Your task to perform on an android device: Go to sound settings Image 0: 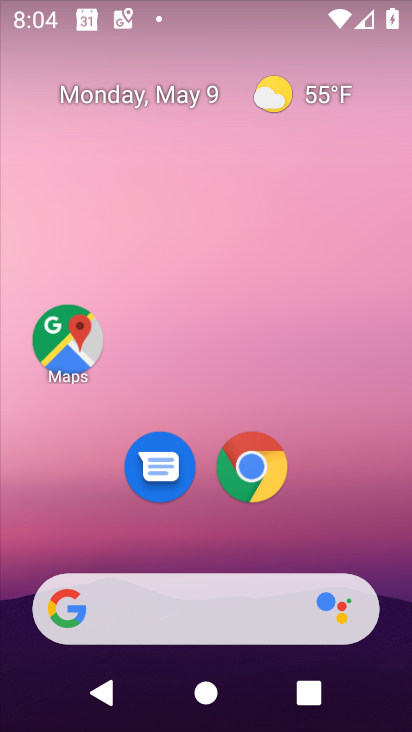
Step 0: drag from (399, 383) to (390, 37)
Your task to perform on an android device: Go to sound settings Image 1: 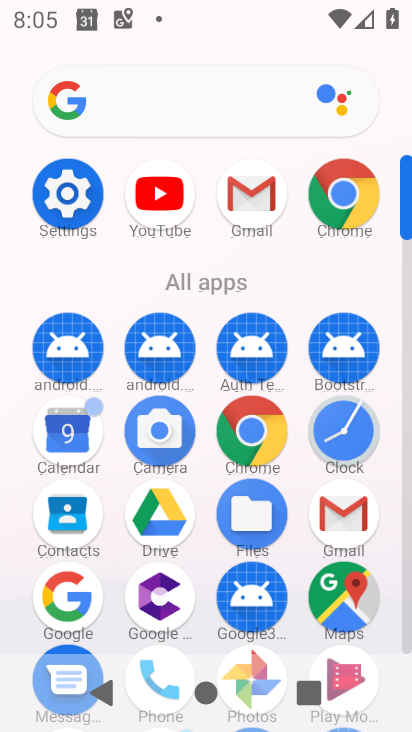
Step 1: click (67, 194)
Your task to perform on an android device: Go to sound settings Image 2: 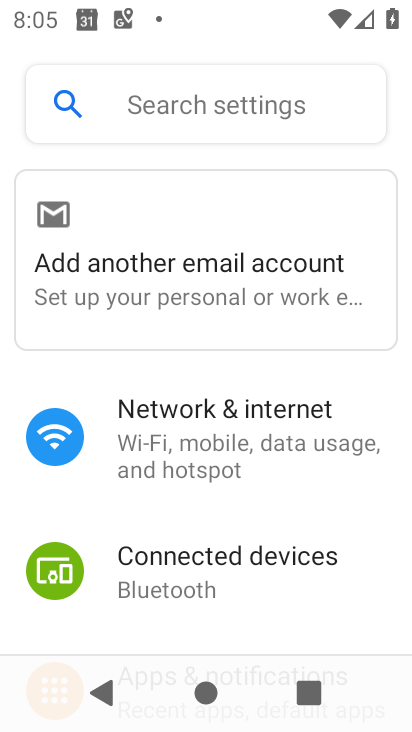
Step 2: drag from (306, 584) to (290, 70)
Your task to perform on an android device: Go to sound settings Image 3: 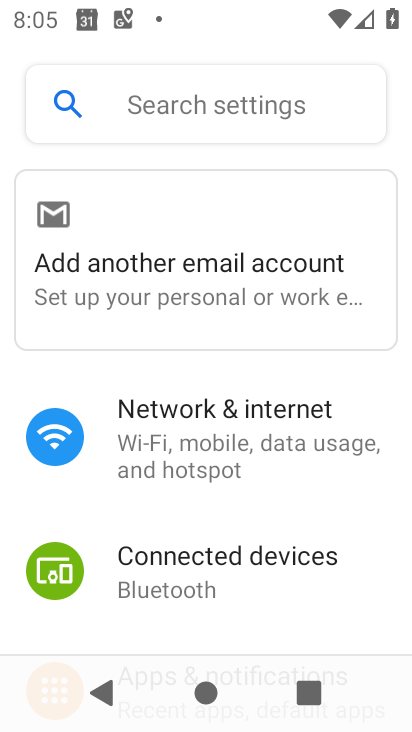
Step 3: drag from (307, 639) to (293, 133)
Your task to perform on an android device: Go to sound settings Image 4: 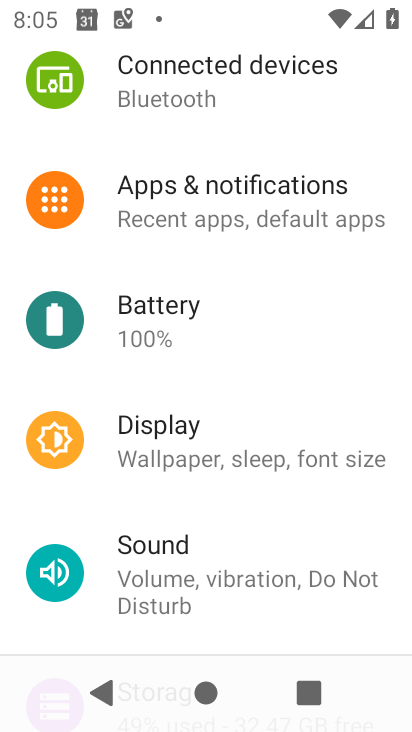
Step 4: drag from (248, 512) to (255, 193)
Your task to perform on an android device: Go to sound settings Image 5: 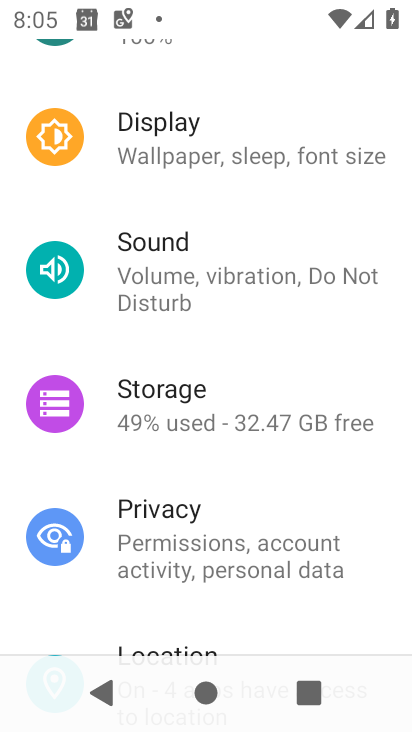
Step 5: click (165, 265)
Your task to perform on an android device: Go to sound settings Image 6: 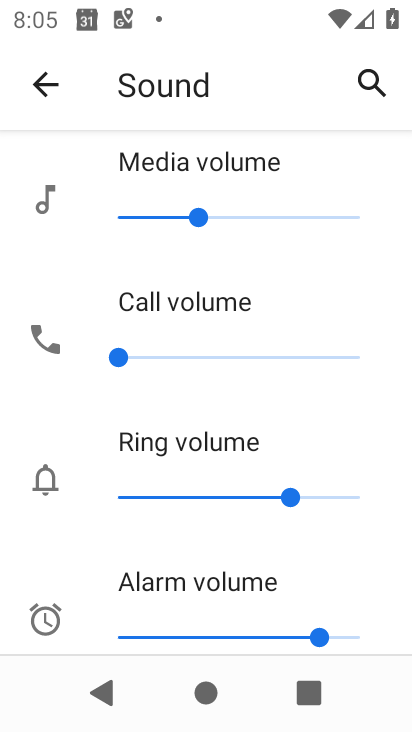
Step 6: task complete